Your task to perform on an android device: Toggle the flashlight Image 0: 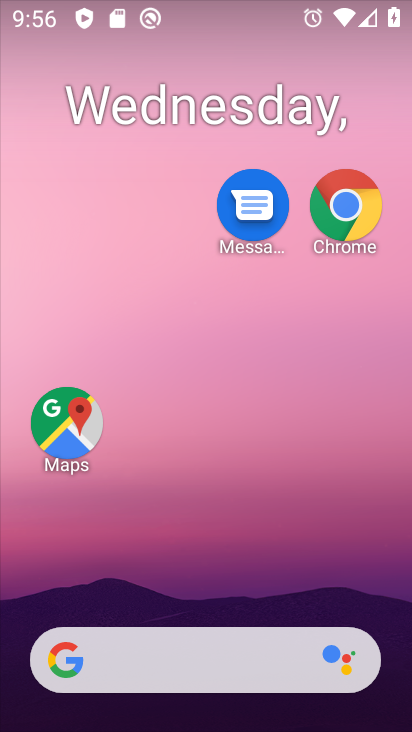
Step 0: drag from (221, 535) to (241, 97)
Your task to perform on an android device: Toggle the flashlight Image 1: 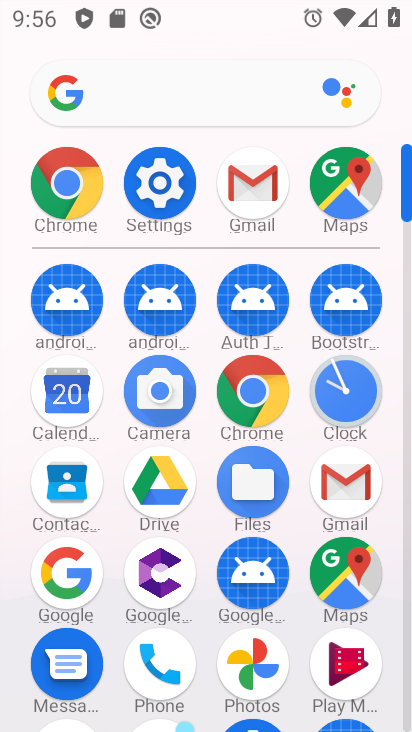
Step 1: click (155, 196)
Your task to perform on an android device: Toggle the flashlight Image 2: 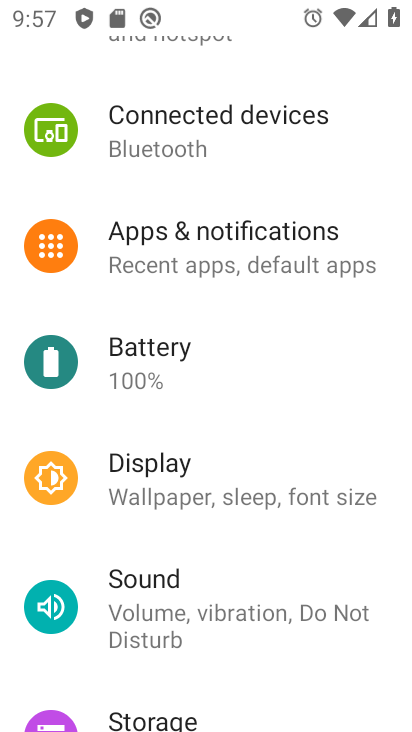
Step 2: drag from (232, 640) to (311, 710)
Your task to perform on an android device: Toggle the flashlight Image 3: 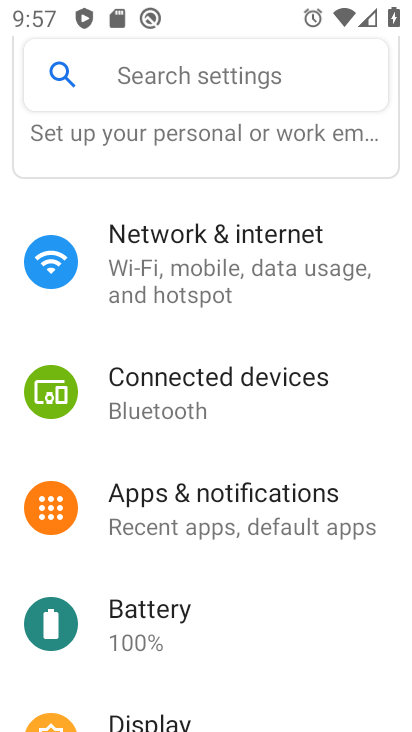
Step 3: click (203, 87)
Your task to perform on an android device: Toggle the flashlight Image 4: 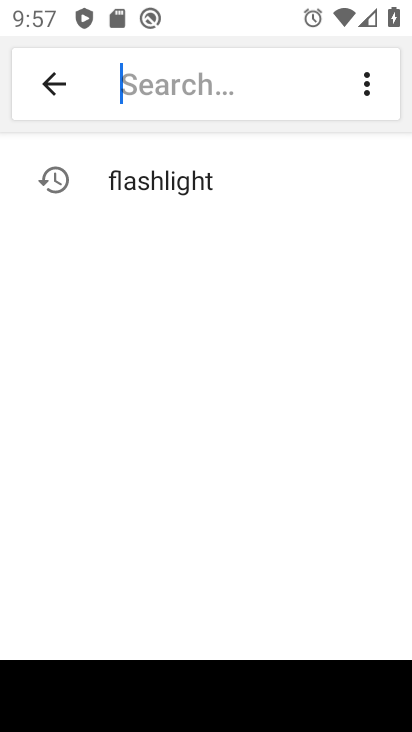
Step 4: click (170, 204)
Your task to perform on an android device: Toggle the flashlight Image 5: 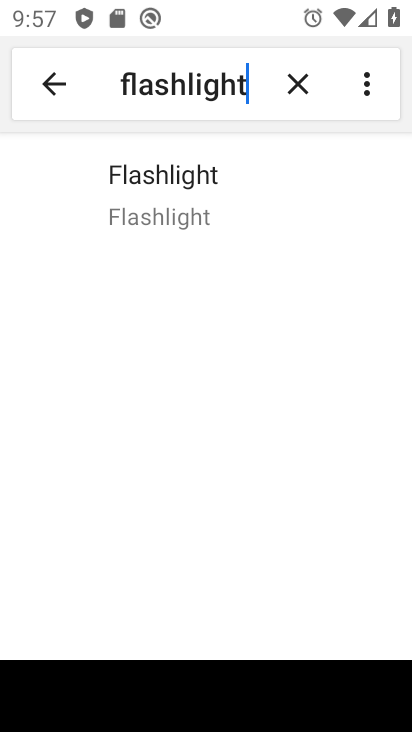
Step 5: task complete